Your task to perform on an android device: empty trash in google photos Image 0: 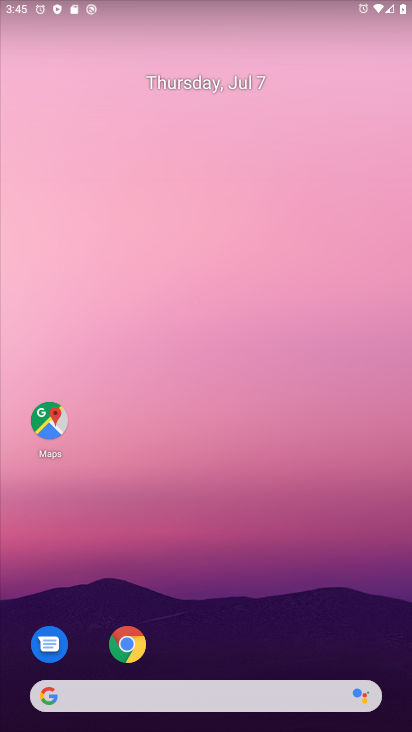
Step 0: drag from (230, 694) to (302, 23)
Your task to perform on an android device: empty trash in google photos Image 1: 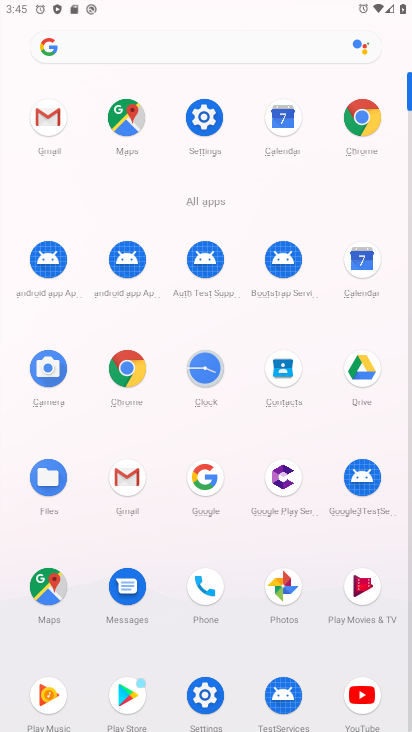
Step 1: click (288, 595)
Your task to perform on an android device: empty trash in google photos Image 2: 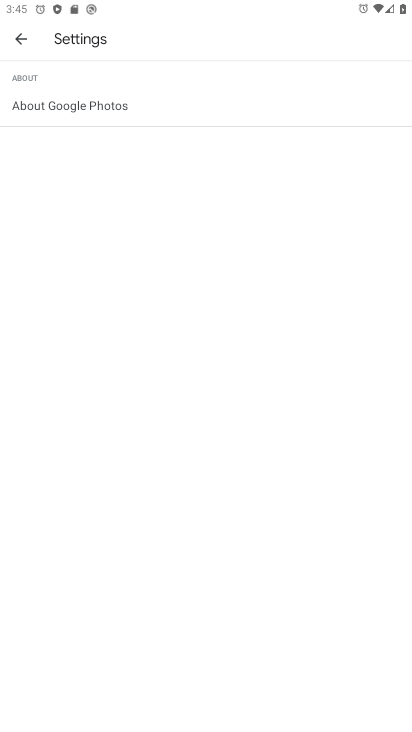
Step 2: click (16, 38)
Your task to perform on an android device: empty trash in google photos Image 3: 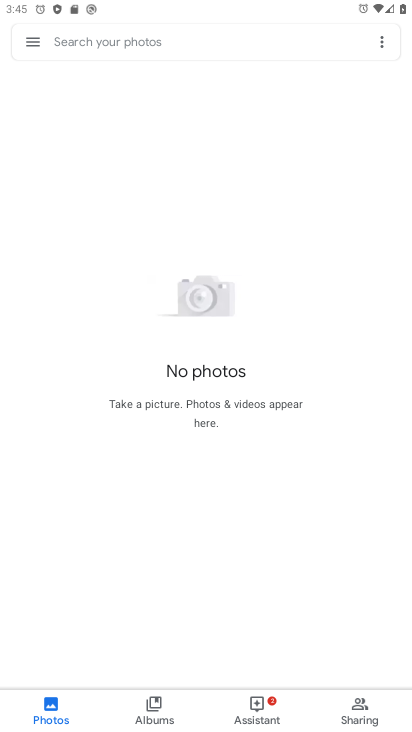
Step 3: click (23, 48)
Your task to perform on an android device: empty trash in google photos Image 4: 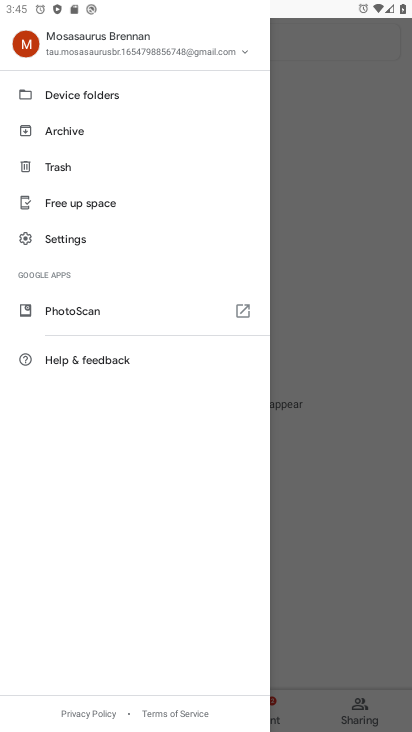
Step 4: click (71, 170)
Your task to perform on an android device: empty trash in google photos Image 5: 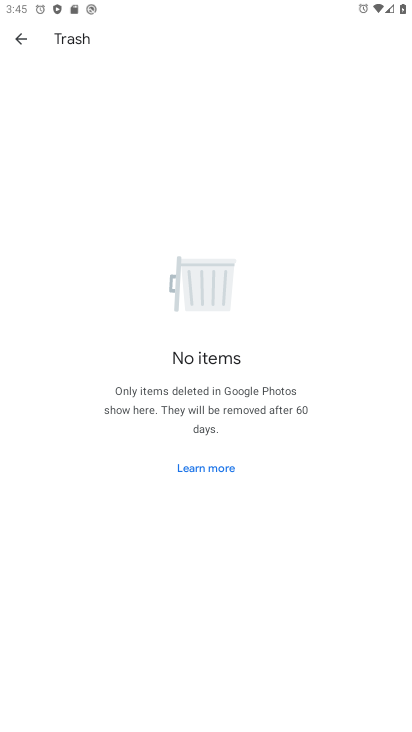
Step 5: task complete